Your task to perform on an android device: search for starred emails in the gmail app Image 0: 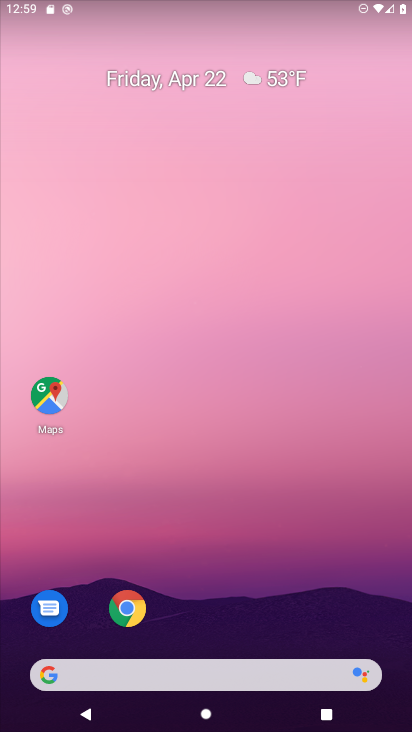
Step 0: drag from (391, 639) to (314, 152)
Your task to perform on an android device: search for starred emails in the gmail app Image 1: 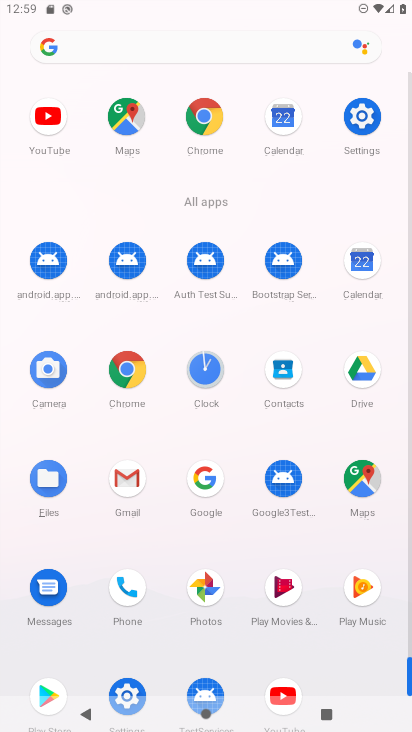
Step 1: click (123, 474)
Your task to perform on an android device: search for starred emails in the gmail app Image 2: 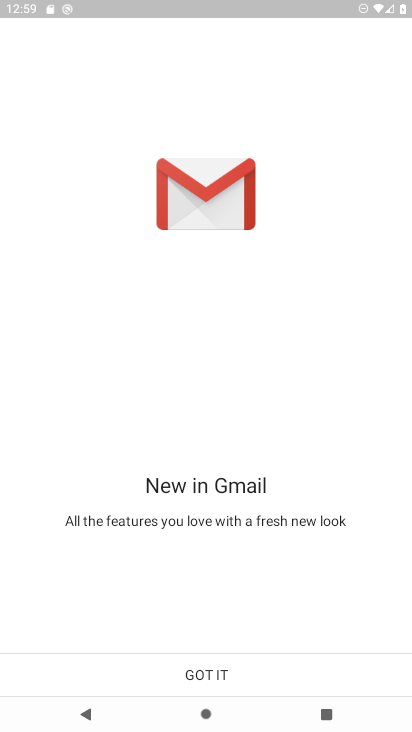
Step 2: click (201, 670)
Your task to perform on an android device: search for starred emails in the gmail app Image 3: 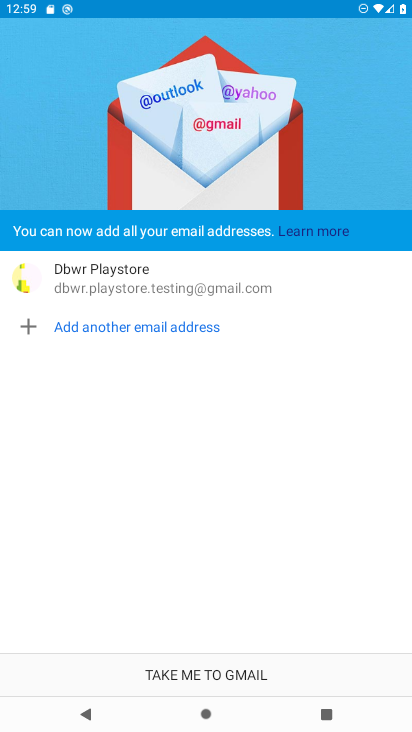
Step 3: click (201, 670)
Your task to perform on an android device: search for starred emails in the gmail app Image 4: 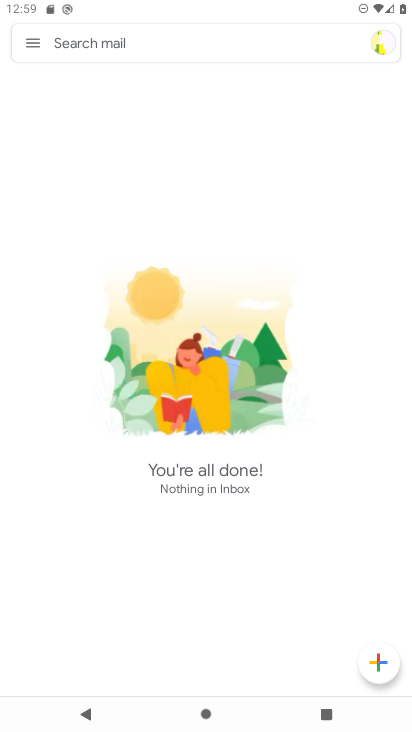
Step 4: click (28, 41)
Your task to perform on an android device: search for starred emails in the gmail app Image 5: 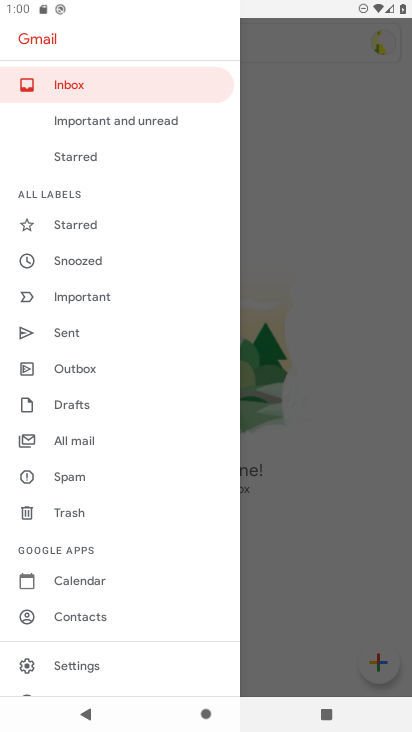
Step 5: click (76, 224)
Your task to perform on an android device: search for starred emails in the gmail app Image 6: 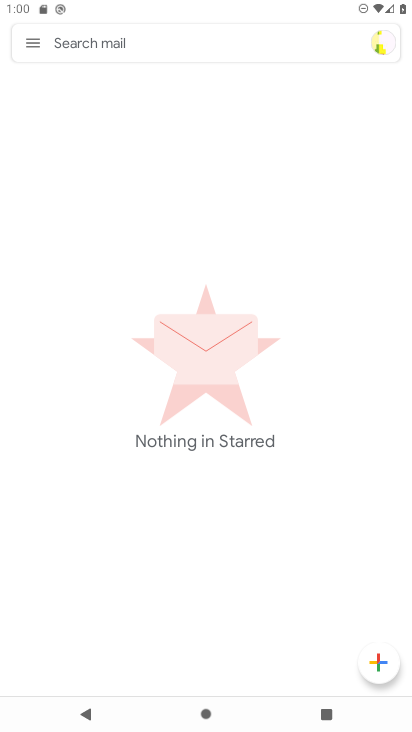
Step 6: task complete